Your task to perform on an android device: turn off sleep mode Image 0: 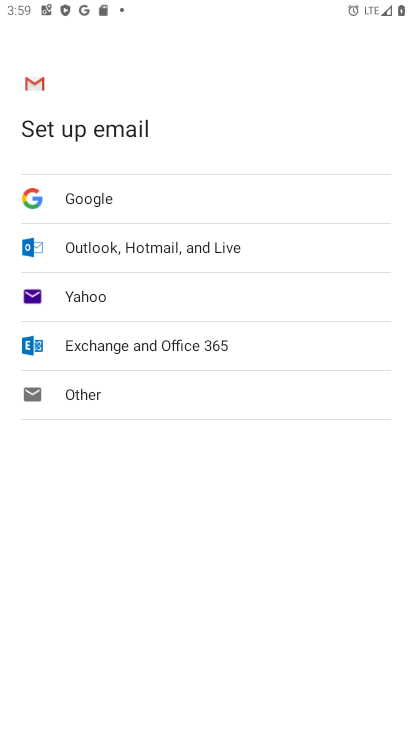
Step 0: press home button
Your task to perform on an android device: turn off sleep mode Image 1: 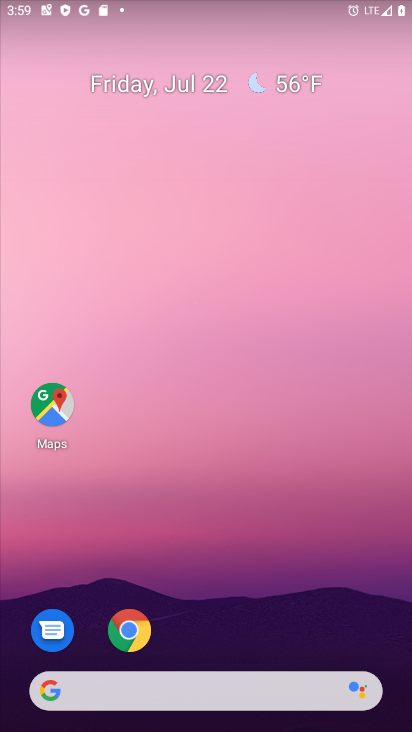
Step 1: drag from (171, 678) to (134, 172)
Your task to perform on an android device: turn off sleep mode Image 2: 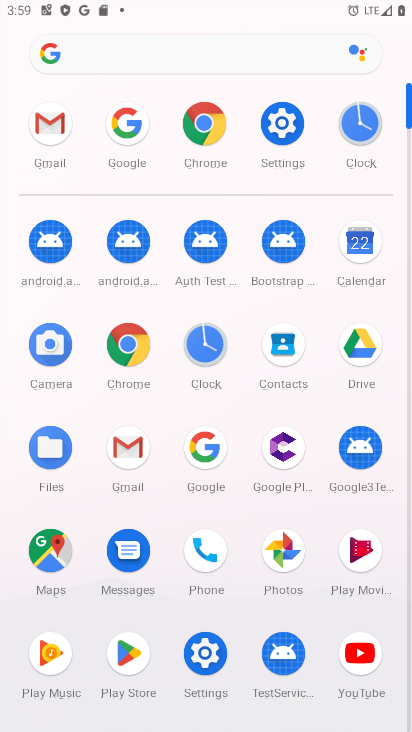
Step 2: click (277, 121)
Your task to perform on an android device: turn off sleep mode Image 3: 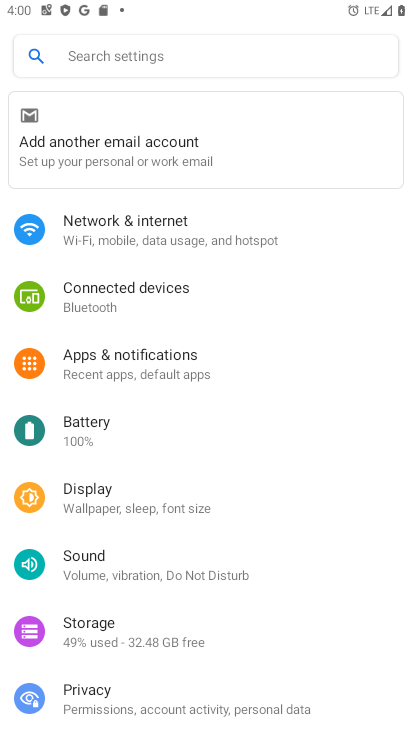
Step 3: click (96, 498)
Your task to perform on an android device: turn off sleep mode Image 4: 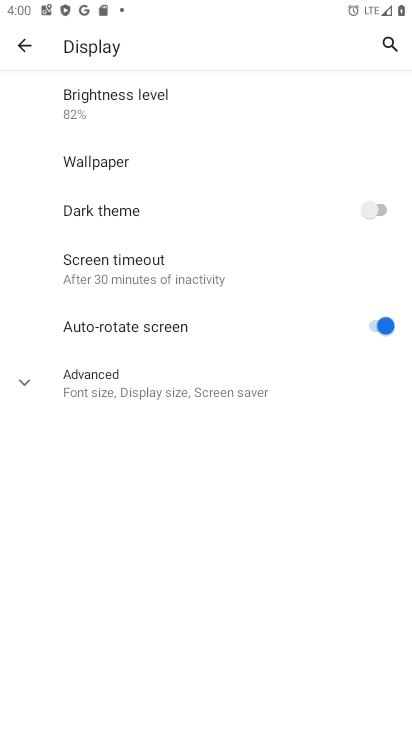
Step 4: click (107, 380)
Your task to perform on an android device: turn off sleep mode Image 5: 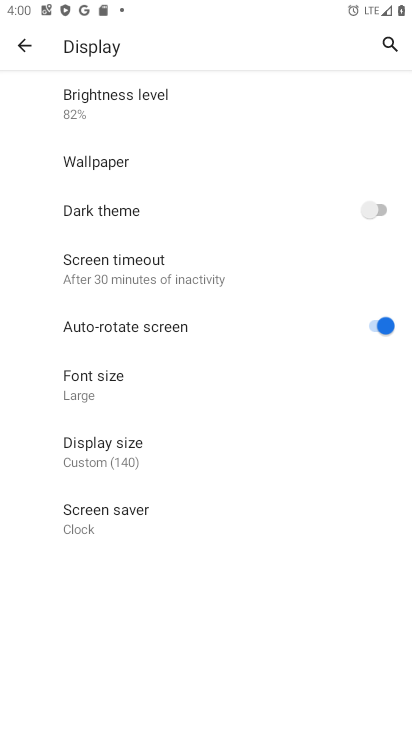
Step 5: task complete